Your task to perform on an android device: toggle data saver in the chrome app Image 0: 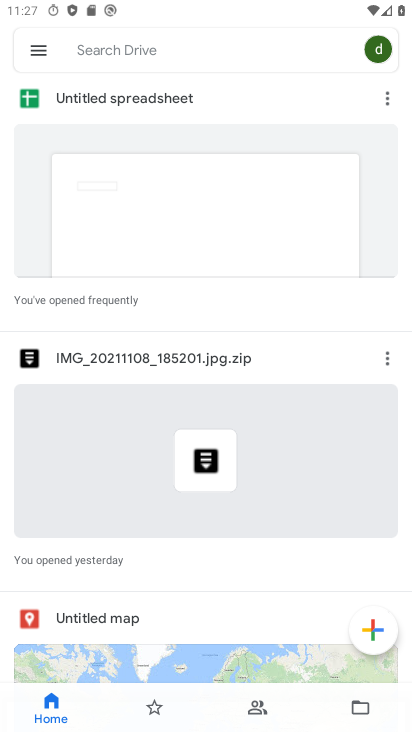
Step 0: press home button
Your task to perform on an android device: toggle data saver in the chrome app Image 1: 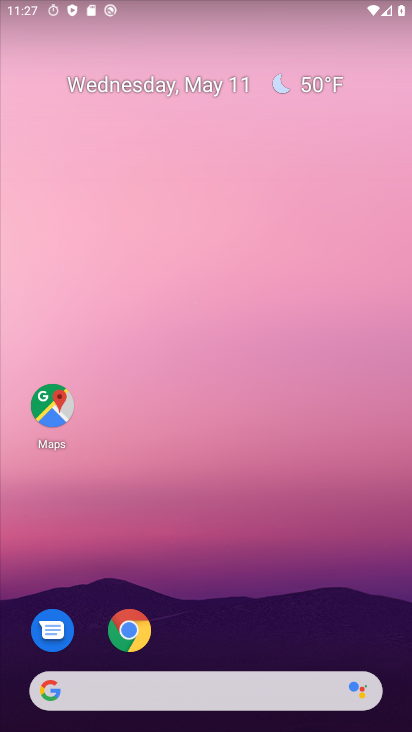
Step 1: drag from (190, 493) to (225, 239)
Your task to perform on an android device: toggle data saver in the chrome app Image 2: 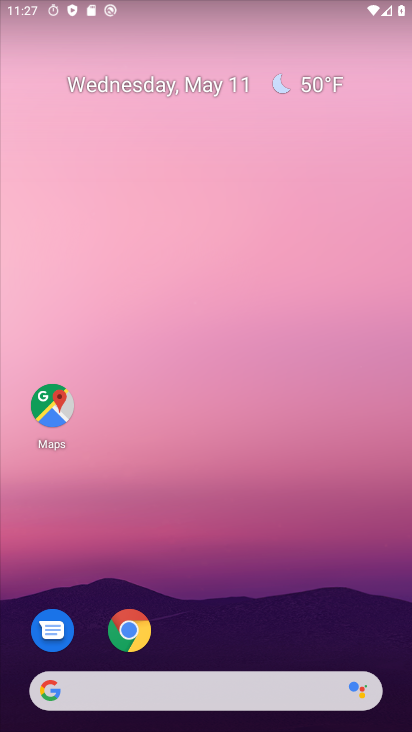
Step 2: drag from (184, 651) to (252, 168)
Your task to perform on an android device: toggle data saver in the chrome app Image 3: 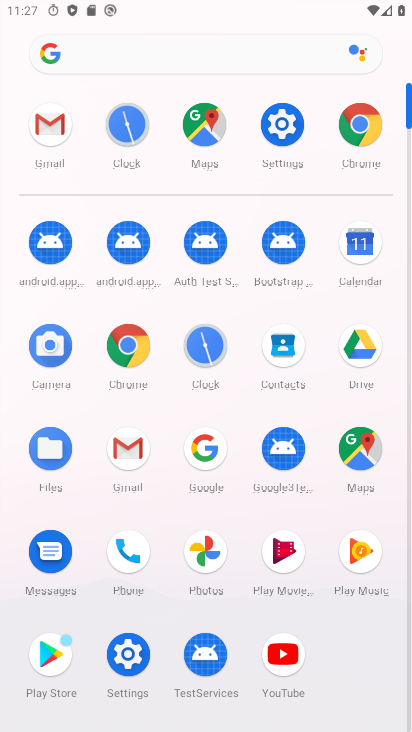
Step 3: click (132, 342)
Your task to perform on an android device: toggle data saver in the chrome app Image 4: 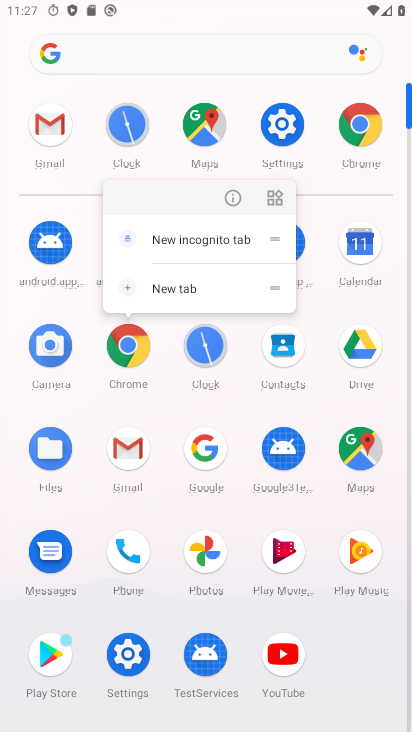
Step 4: click (229, 201)
Your task to perform on an android device: toggle data saver in the chrome app Image 5: 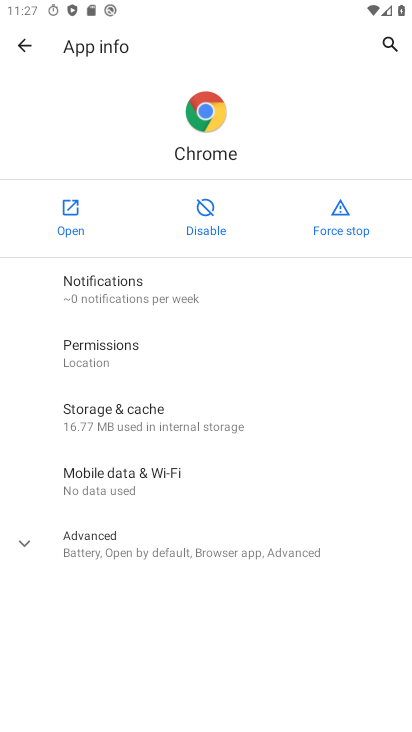
Step 5: click (63, 227)
Your task to perform on an android device: toggle data saver in the chrome app Image 6: 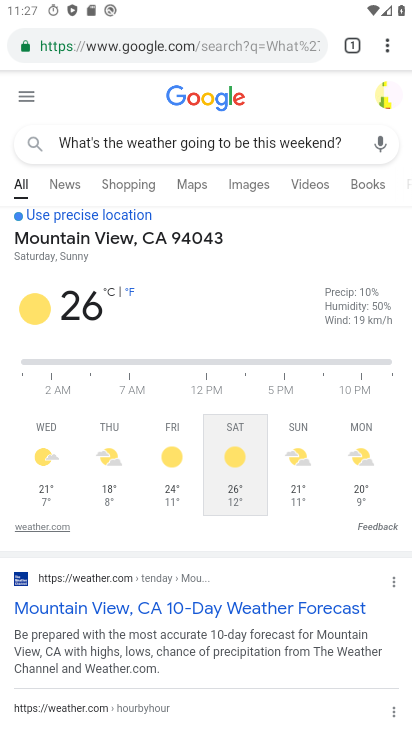
Step 6: click (384, 47)
Your task to perform on an android device: toggle data saver in the chrome app Image 7: 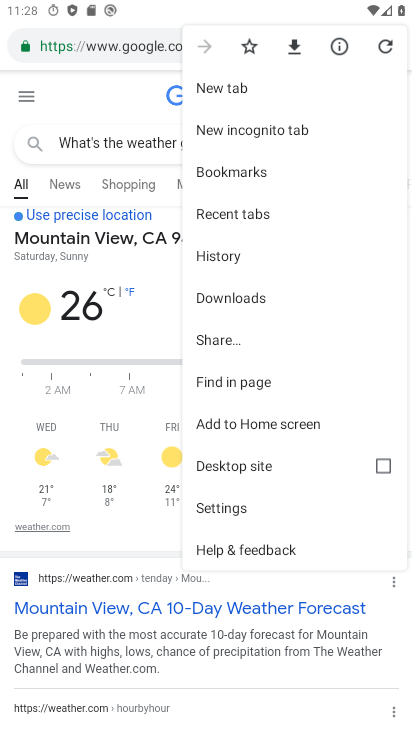
Step 7: click (232, 506)
Your task to perform on an android device: toggle data saver in the chrome app Image 8: 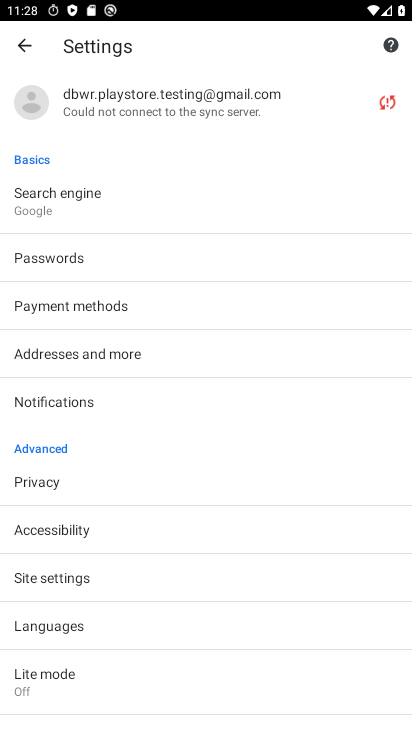
Step 8: click (74, 680)
Your task to perform on an android device: toggle data saver in the chrome app Image 9: 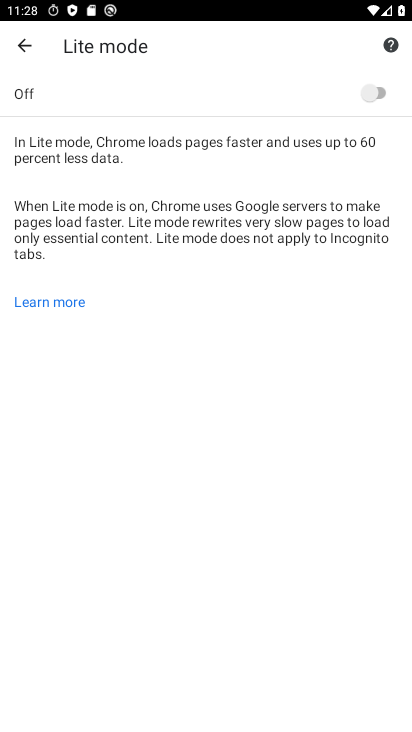
Step 9: click (368, 101)
Your task to perform on an android device: toggle data saver in the chrome app Image 10: 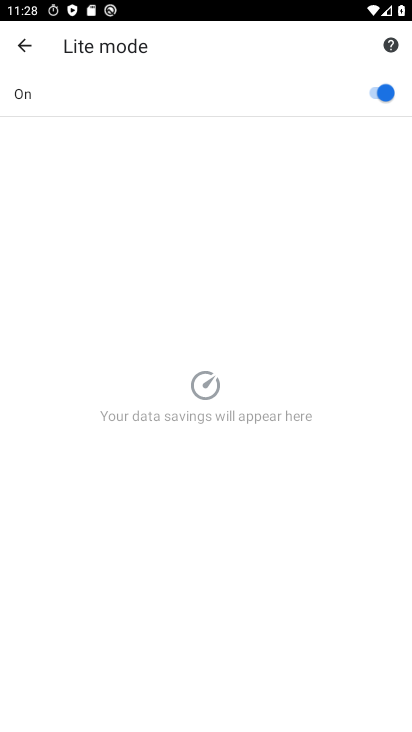
Step 10: task complete